Your task to perform on an android device: Go to Maps Image 0: 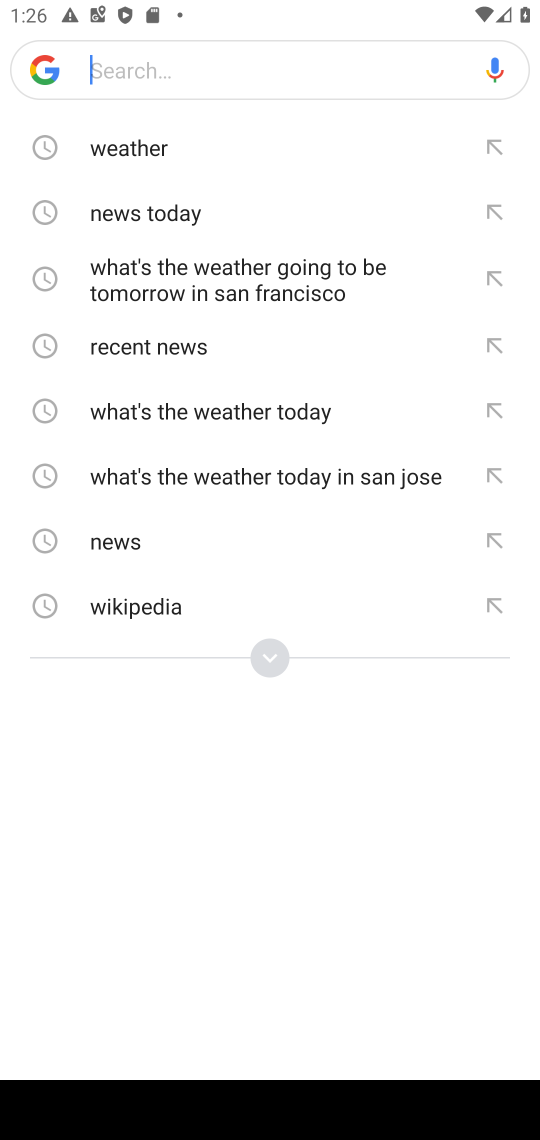
Step 0: press home button
Your task to perform on an android device: Go to Maps Image 1: 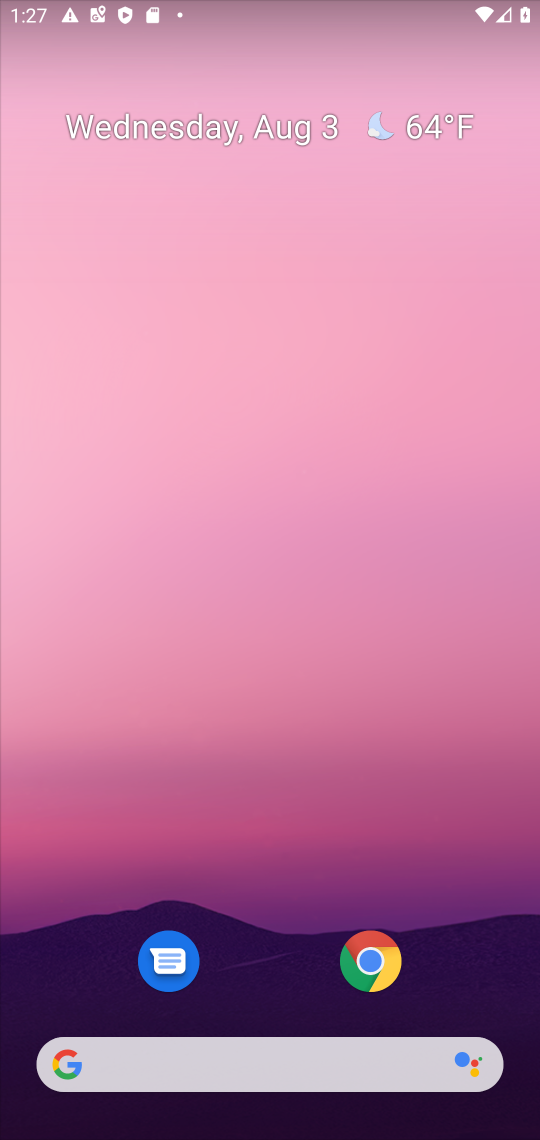
Step 1: drag from (303, 778) to (327, 22)
Your task to perform on an android device: Go to Maps Image 2: 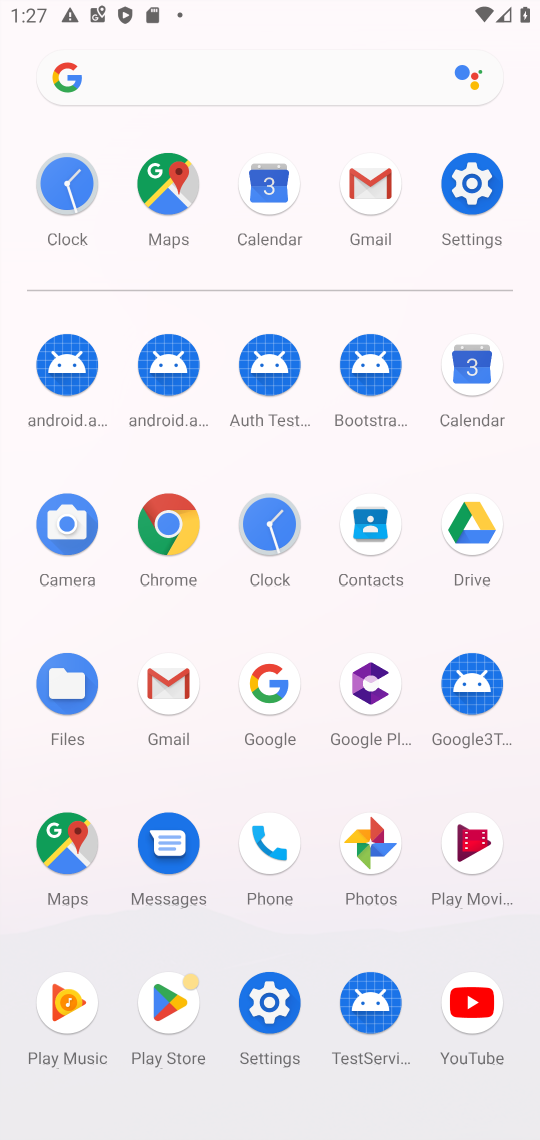
Step 2: click (166, 186)
Your task to perform on an android device: Go to Maps Image 3: 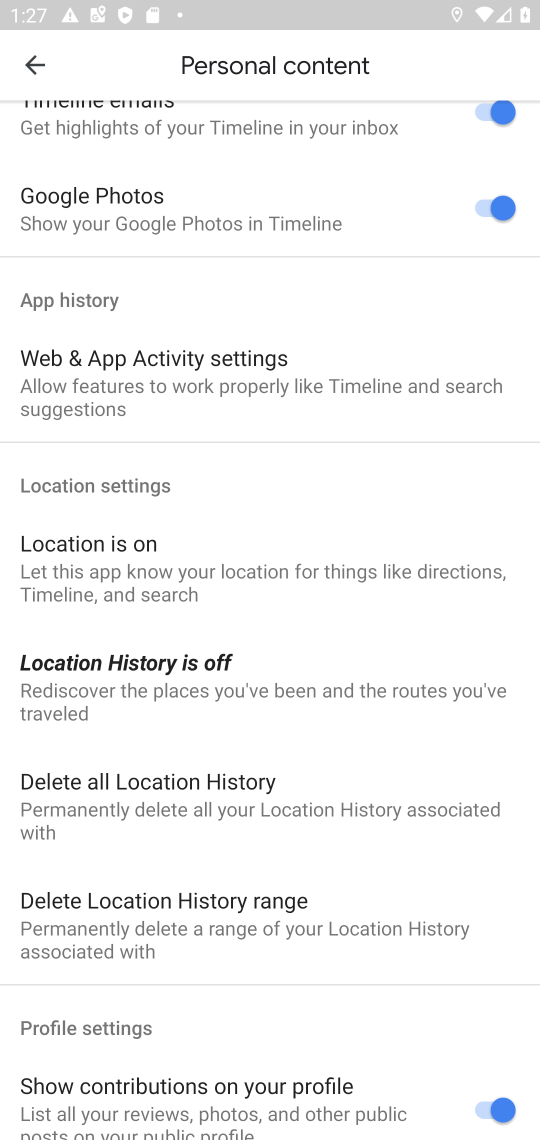
Step 3: task complete